Your task to perform on an android device: change notifications settings Image 0: 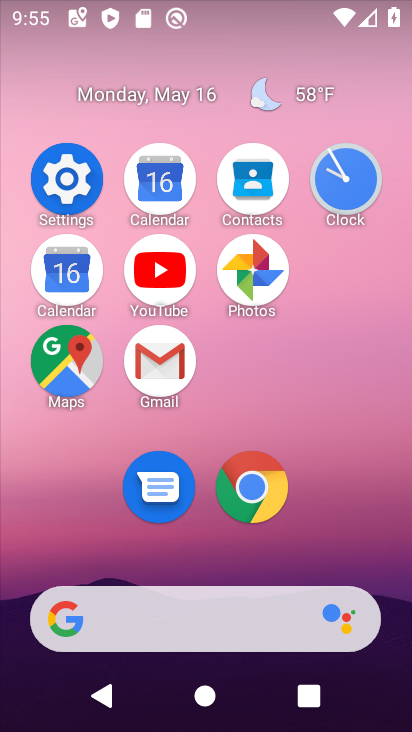
Step 0: click (79, 173)
Your task to perform on an android device: change notifications settings Image 1: 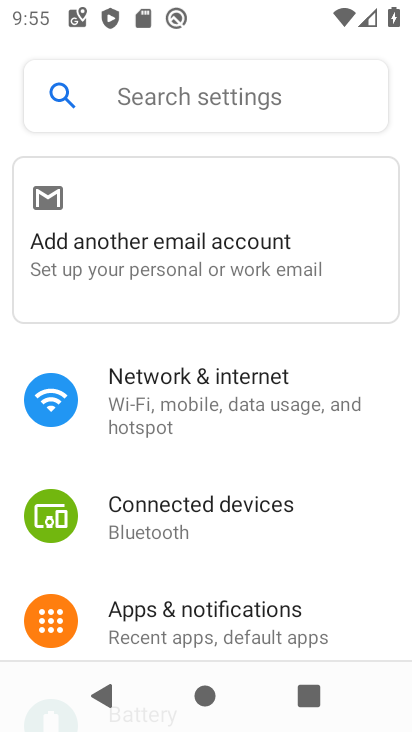
Step 1: click (212, 629)
Your task to perform on an android device: change notifications settings Image 2: 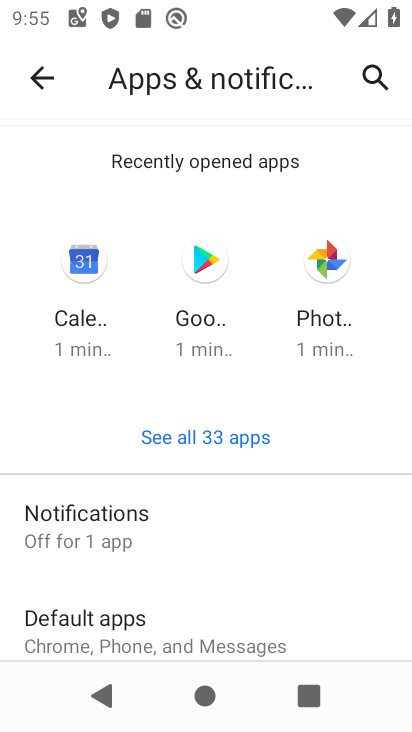
Step 2: drag from (223, 552) to (303, 59)
Your task to perform on an android device: change notifications settings Image 3: 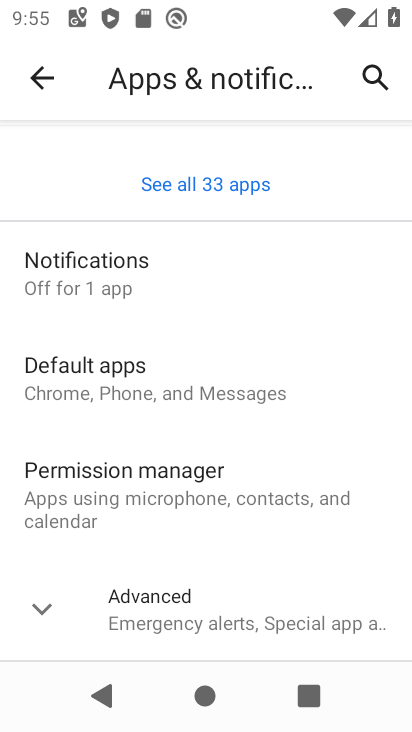
Step 3: click (203, 253)
Your task to perform on an android device: change notifications settings Image 4: 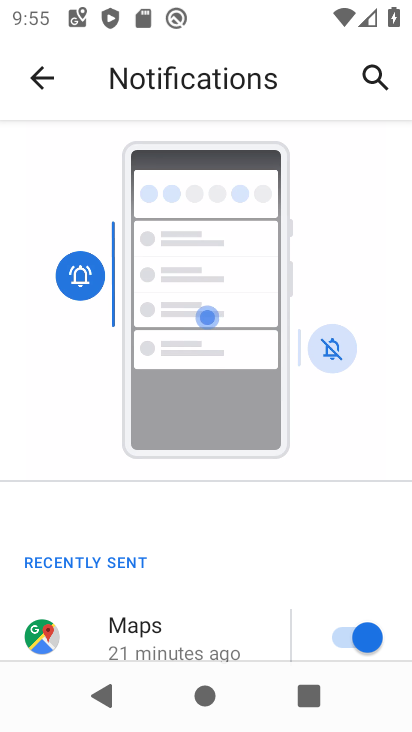
Step 4: drag from (215, 563) to (287, 54)
Your task to perform on an android device: change notifications settings Image 5: 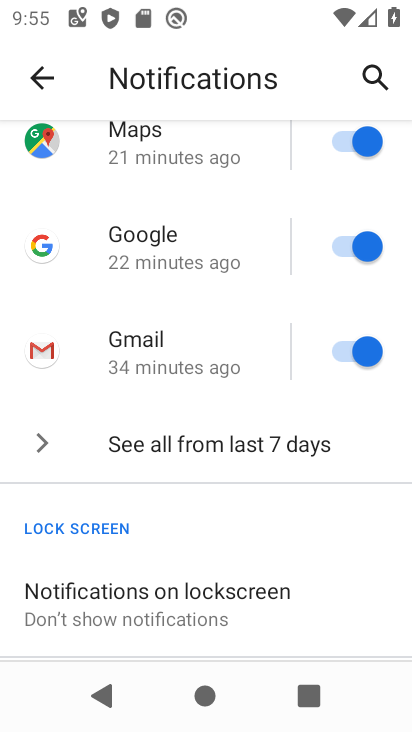
Step 5: drag from (249, 504) to (325, 75)
Your task to perform on an android device: change notifications settings Image 6: 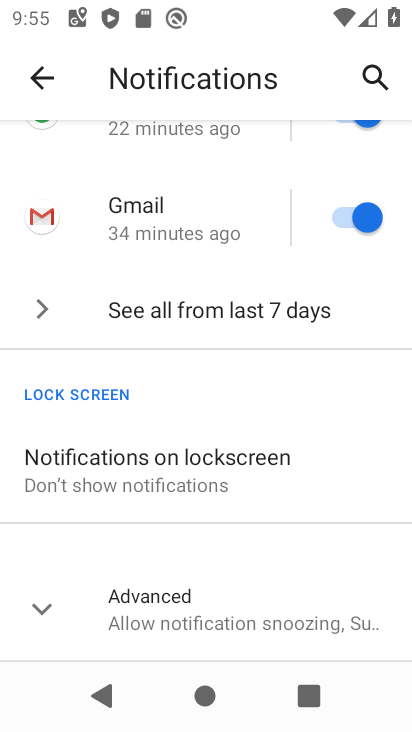
Step 6: click (245, 613)
Your task to perform on an android device: change notifications settings Image 7: 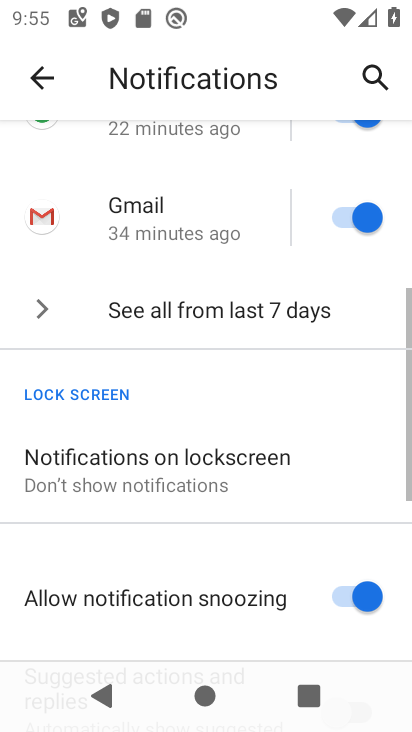
Step 7: drag from (231, 588) to (302, 92)
Your task to perform on an android device: change notifications settings Image 8: 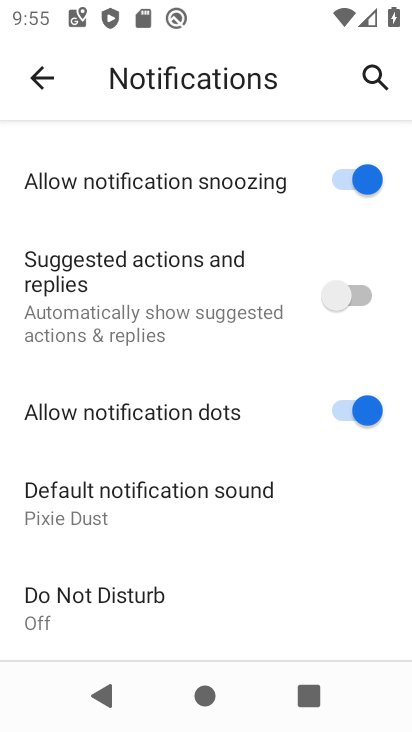
Step 8: click (351, 413)
Your task to perform on an android device: change notifications settings Image 9: 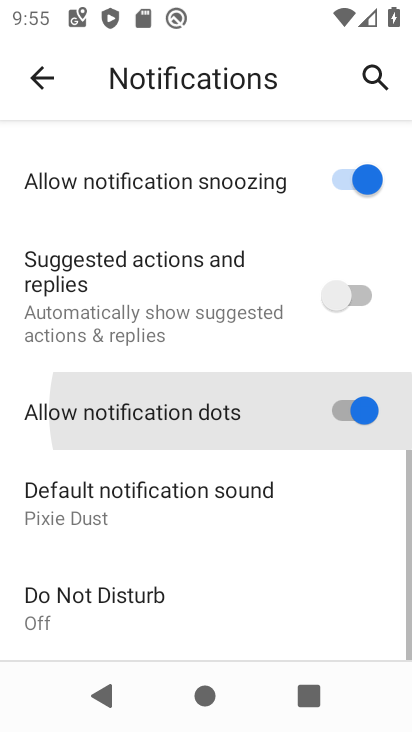
Step 9: click (351, 282)
Your task to perform on an android device: change notifications settings Image 10: 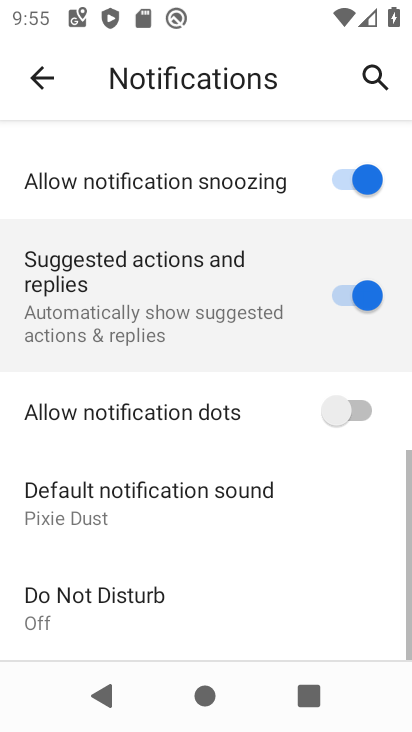
Step 10: click (379, 163)
Your task to perform on an android device: change notifications settings Image 11: 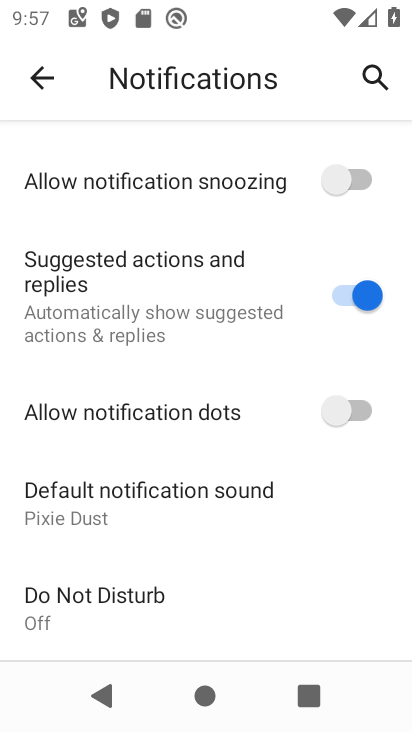
Step 11: task complete